Your task to perform on an android device: open device folders in google photos Image 0: 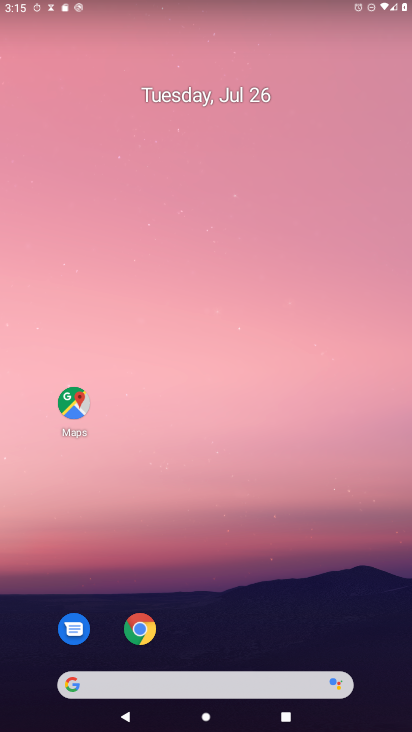
Step 0: drag from (292, 527) to (297, 16)
Your task to perform on an android device: open device folders in google photos Image 1: 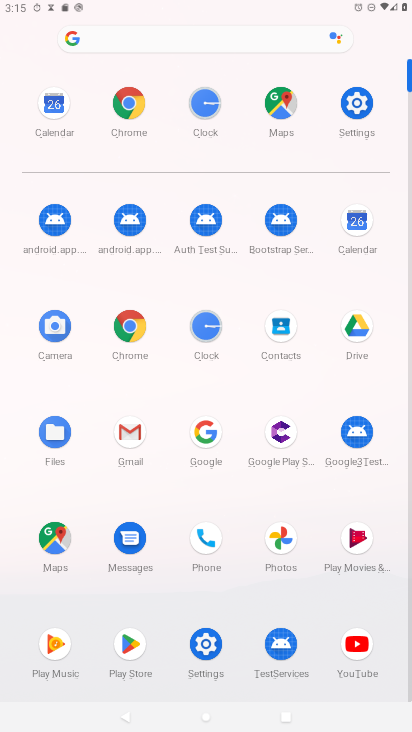
Step 1: click (277, 536)
Your task to perform on an android device: open device folders in google photos Image 2: 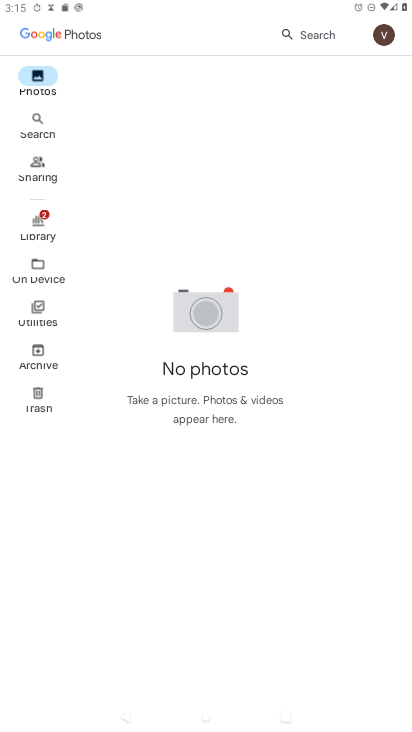
Step 2: click (38, 264)
Your task to perform on an android device: open device folders in google photos Image 3: 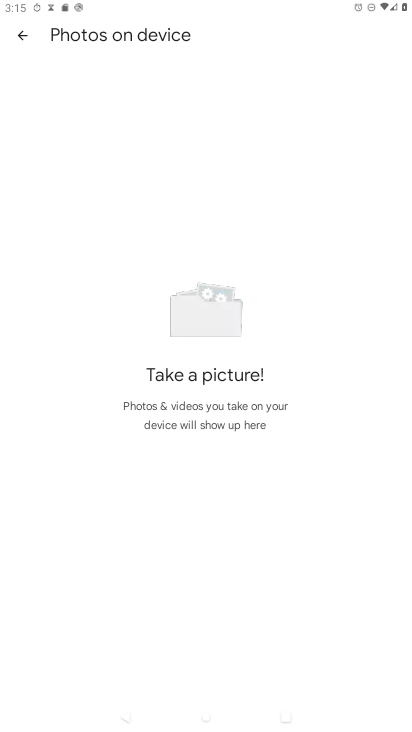
Step 3: task complete